Your task to perform on an android device: visit the assistant section in the google photos Image 0: 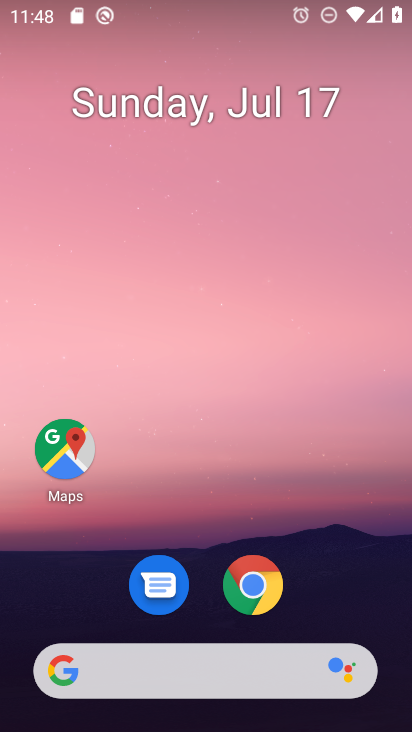
Step 0: drag from (328, 586) to (317, 54)
Your task to perform on an android device: visit the assistant section in the google photos Image 1: 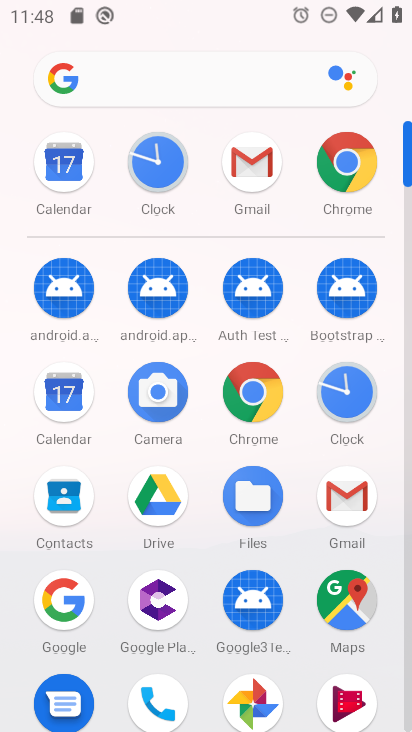
Step 1: drag from (204, 437) to (216, 294)
Your task to perform on an android device: visit the assistant section in the google photos Image 2: 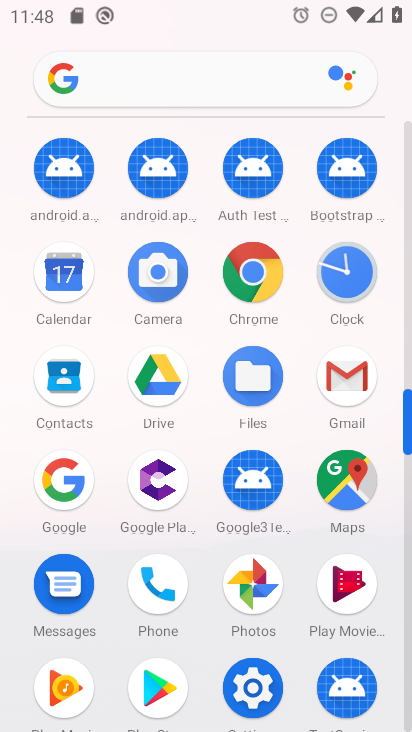
Step 2: click (249, 589)
Your task to perform on an android device: visit the assistant section in the google photos Image 3: 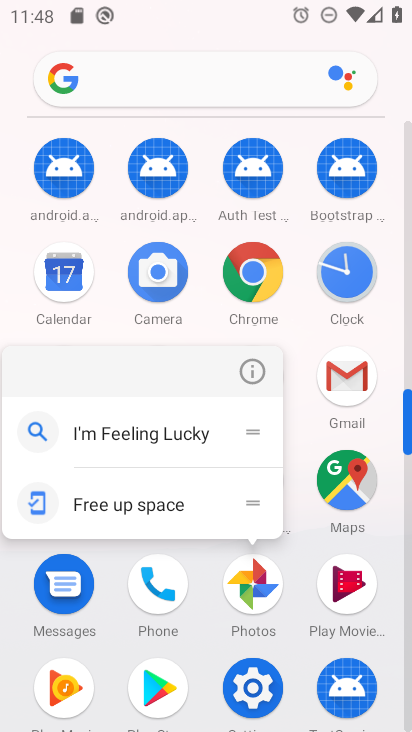
Step 3: click (249, 590)
Your task to perform on an android device: visit the assistant section in the google photos Image 4: 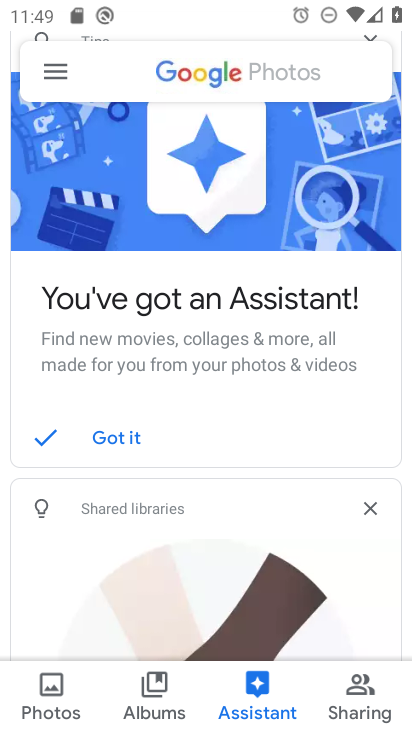
Step 4: click (252, 700)
Your task to perform on an android device: visit the assistant section in the google photos Image 5: 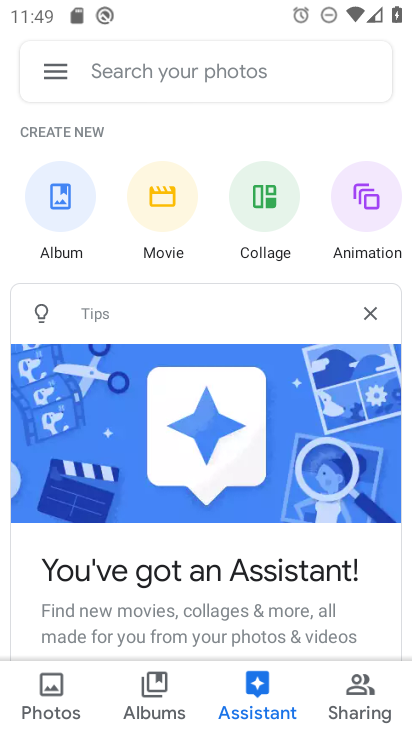
Step 5: task complete